Your task to perform on an android device: turn notification dots on Image 0: 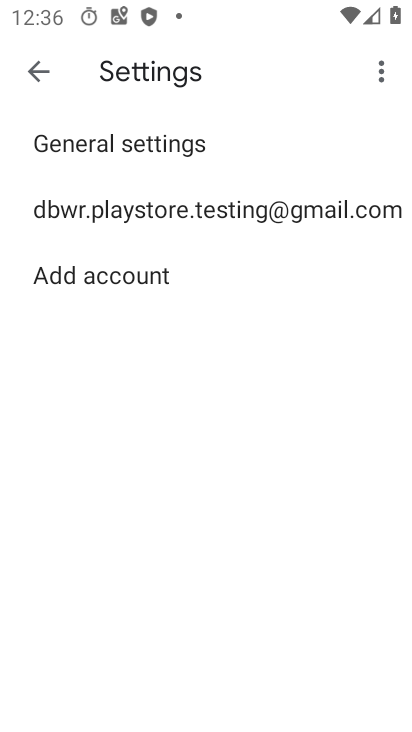
Step 0: press home button
Your task to perform on an android device: turn notification dots on Image 1: 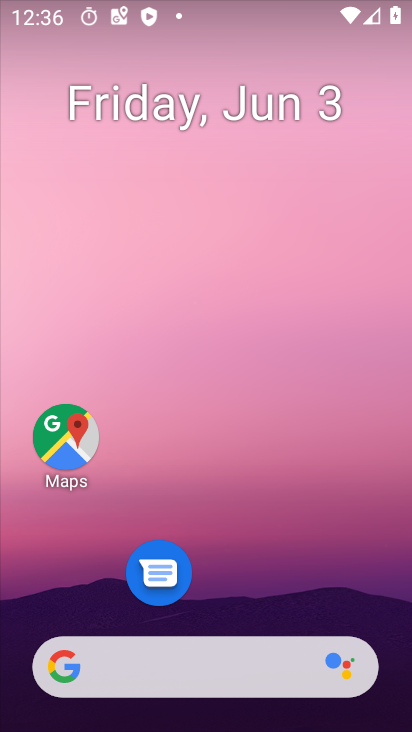
Step 1: drag from (201, 657) to (211, 40)
Your task to perform on an android device: turn notification dots on Image 2: 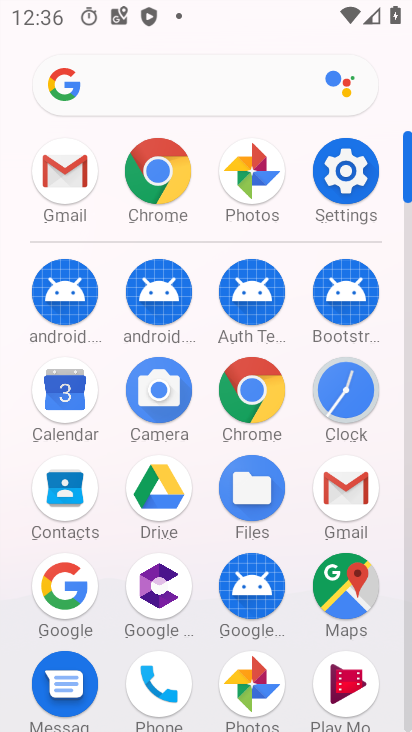
Step 2: click (343, 166)
Your task to perform on an android device: turn notification dots on Image 3: 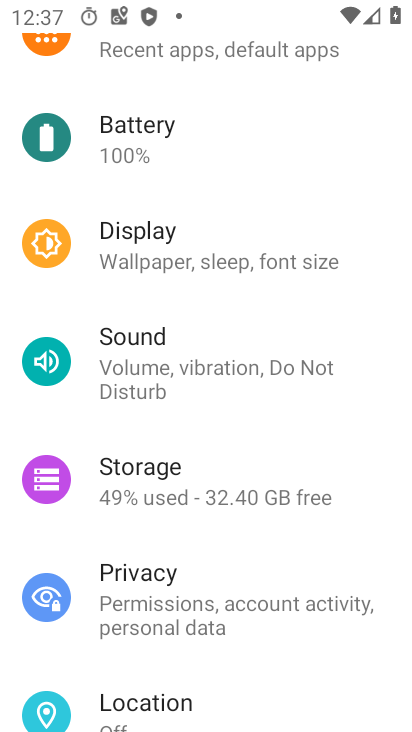
Step 3: drag from (323, 169) to (298, 632)
Your task to perform on an android device: turn notification dots on Image 4: 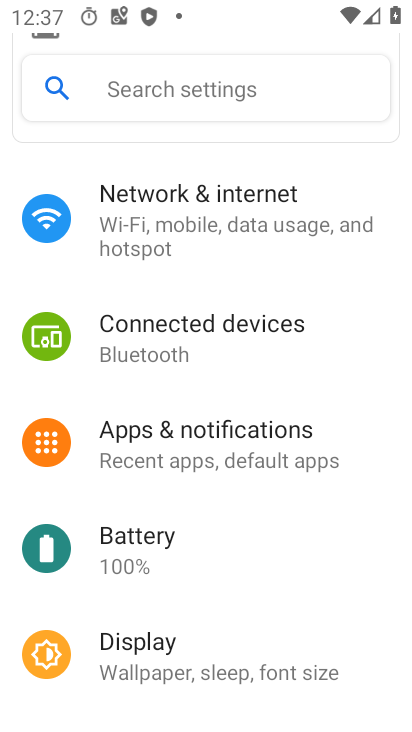
Step 4: click (242, 188)
Your task to perform on an android device: turn notification dots on Image 5: 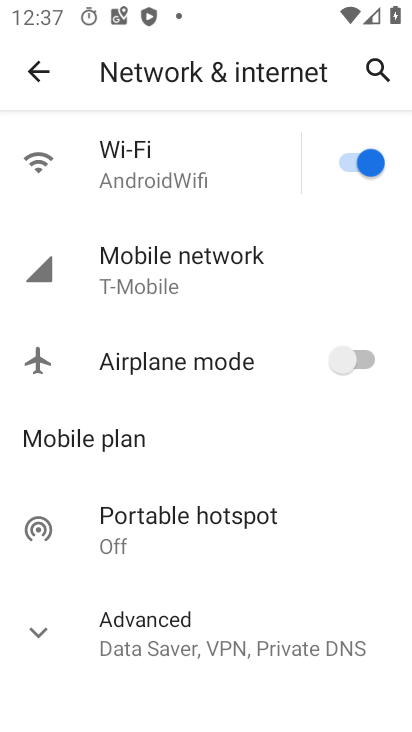
Step 5: press back button
Your task to perform on an android device: turn notification dots on Image 6: 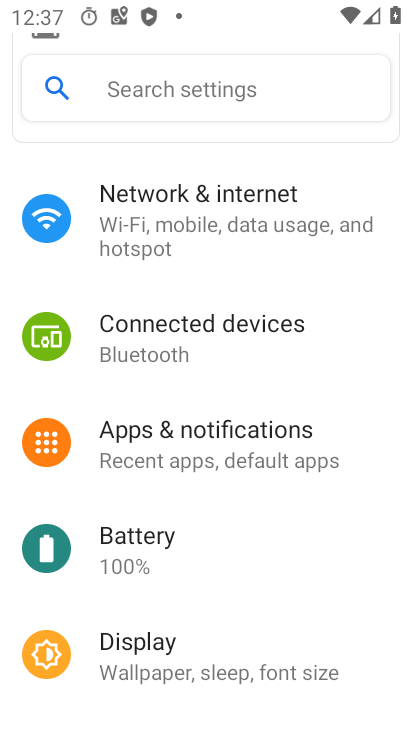
Step 6: click (240, 430)
Your task to perform on an android device: turn notification dots on Image 7: 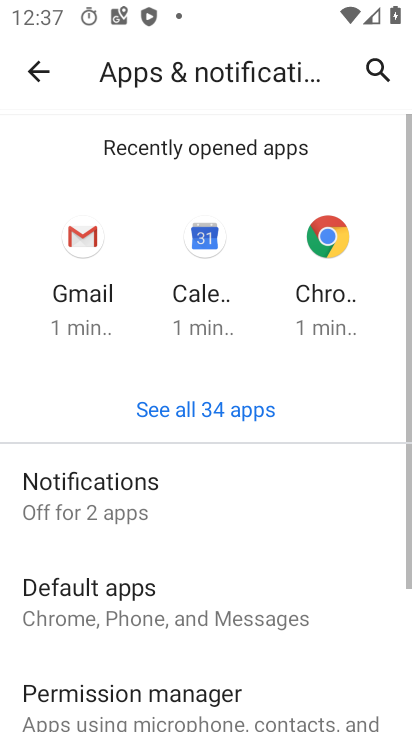
Step 7: drag from (270, 595) to (261, 116)
Your task to perform on an android device: turn notification dots on Image 8: 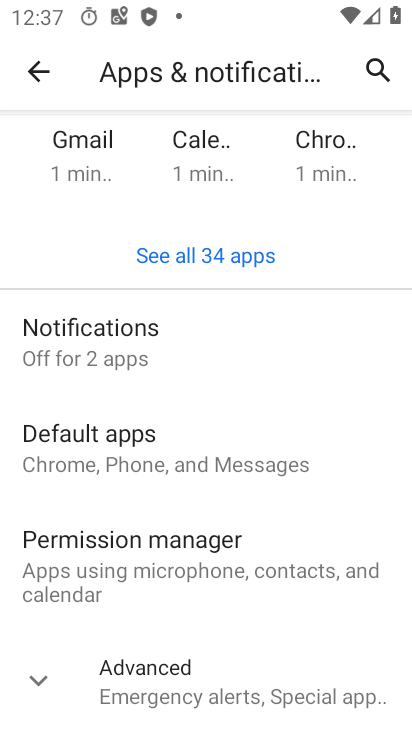
Step 8: click (233, 691)
Your task to perform on an android device: turn notification dots on Image 9: 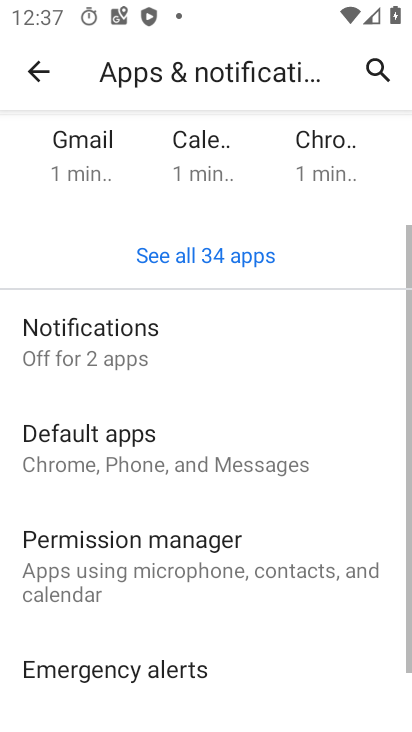
Step 9: drag from (238, 677) to (265, 176)
Your task to perform on an android device: turn notification dots on Image 10: 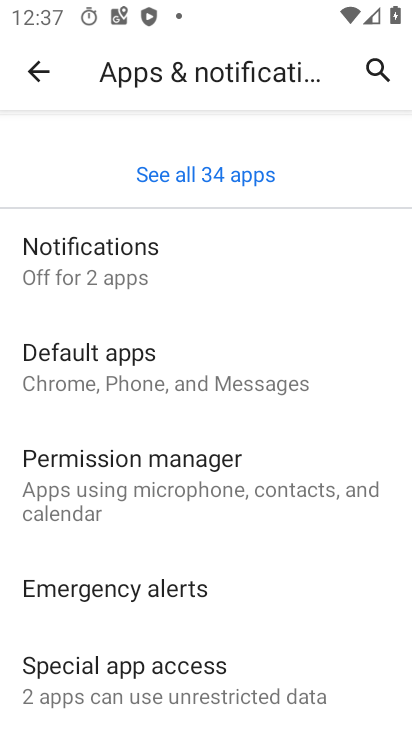
Step 10: click (112, 265)
Your task to perform on an android device: turn notification dots on Image 11: 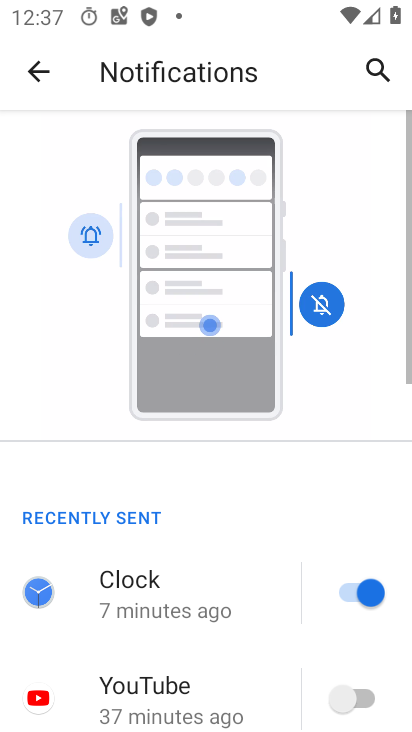
Step 11: drag from (225, 465) to (251, 52)
Your task to perform on an android device: turn notification dots on Image 12: 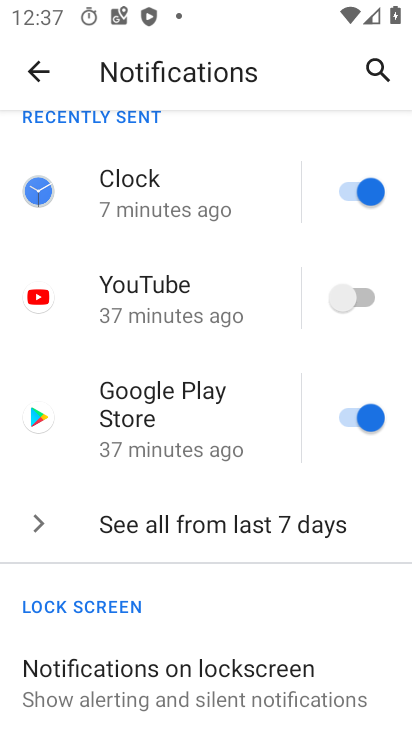
Step 12: drag from (235, 622) to (252, 112)
Your task to perform on an android device: turn notification dots on Image 13: 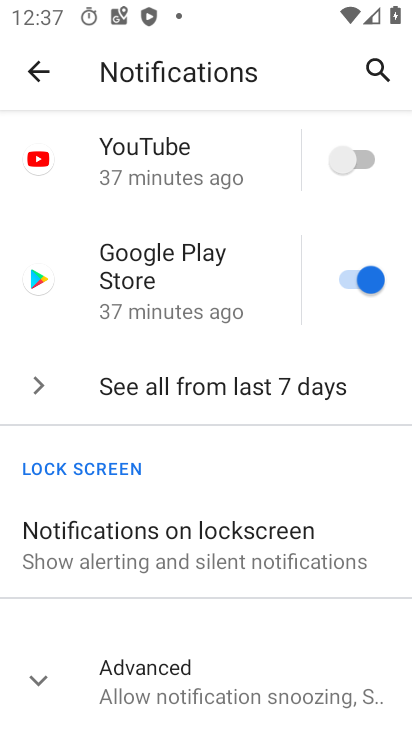
Step 13: click (178, 690)
Your task to perform on an android device: turn notification dots on Image 14: 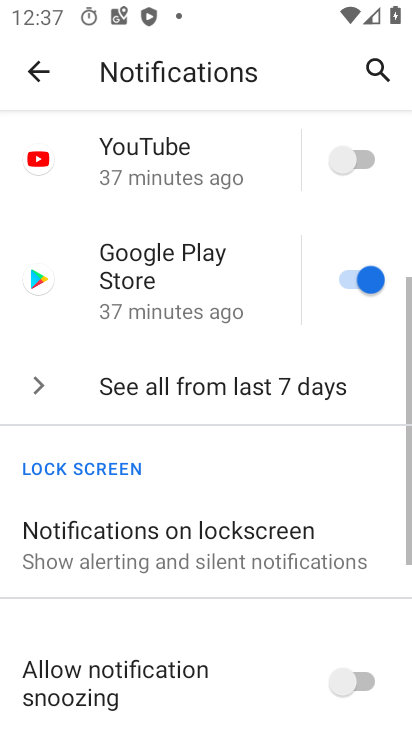
Step 14: task complete